Your task to perform on an android device: Is it going to rain tomorrow? Image 0: 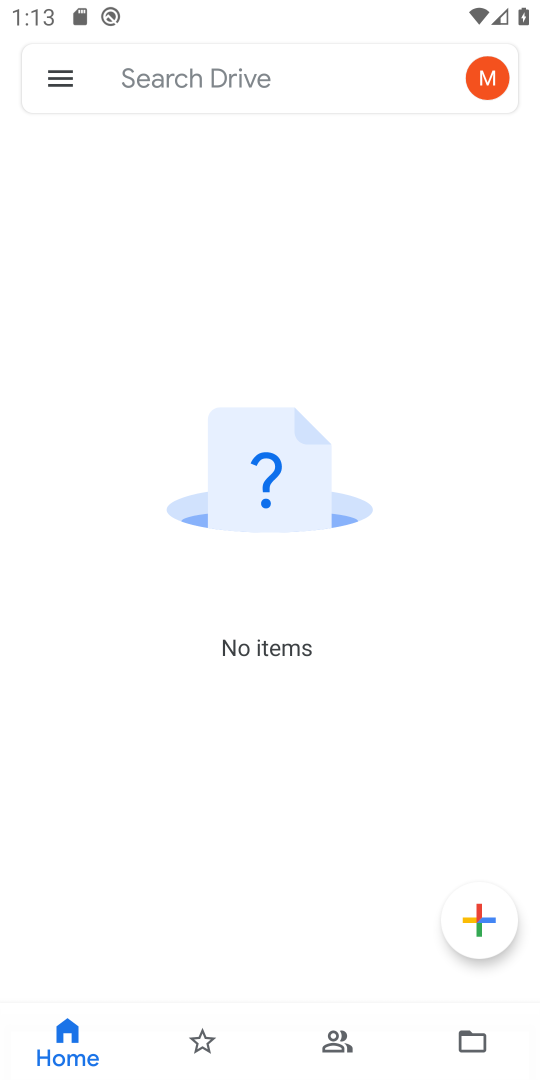
Step 0: press home button
Your task to perform on an android device: Is it going to rain tomorrow? Image 1: 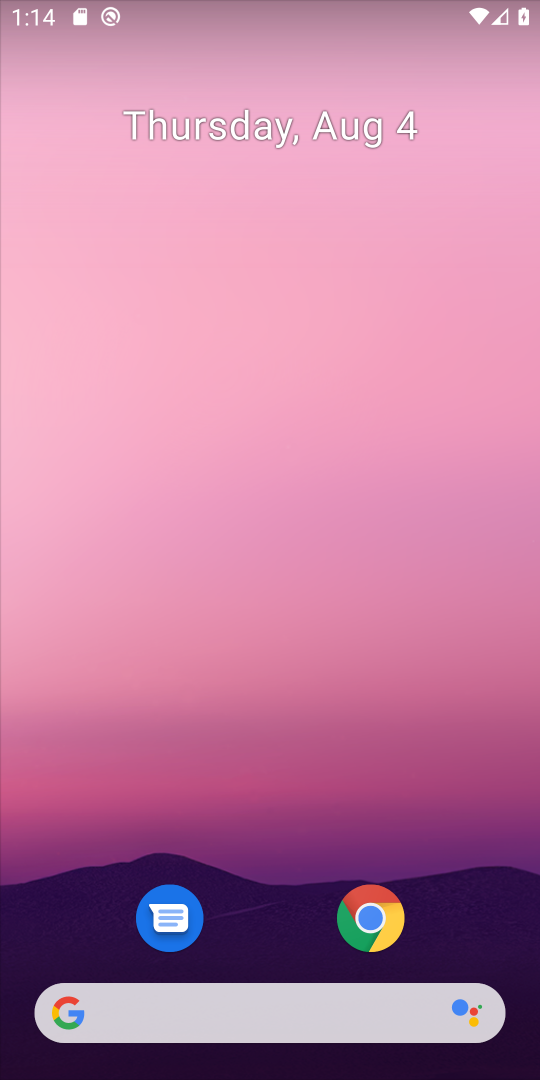
Step 1: drag from (283, 882) to (267, 174)
Your task to perform on an android device: Is it going to rain tomorrow? Image 2: 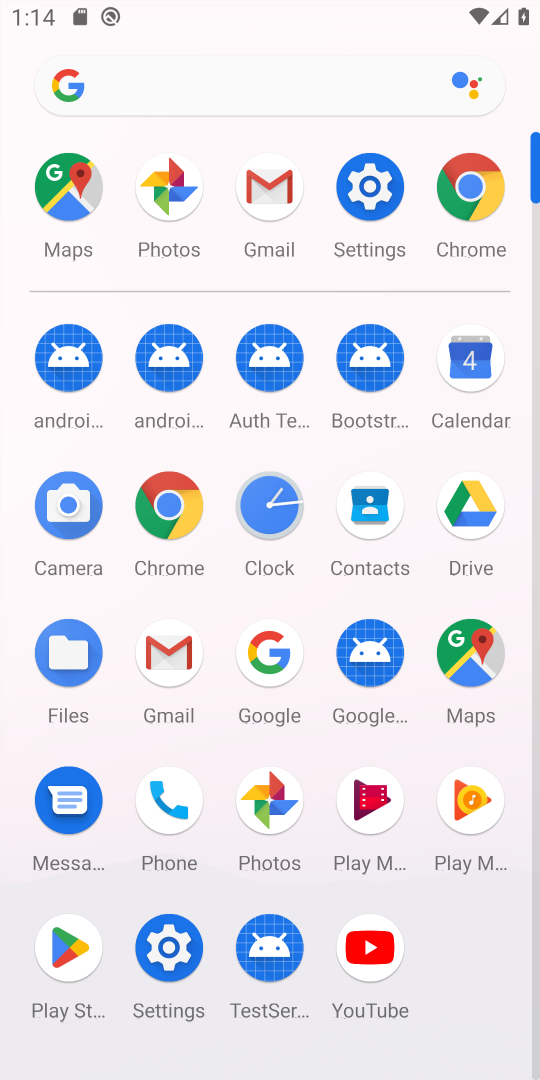
Step 2: click (249, 679)
Your task to perform on an android device: Is it going to rain tomorrow? Image 3: 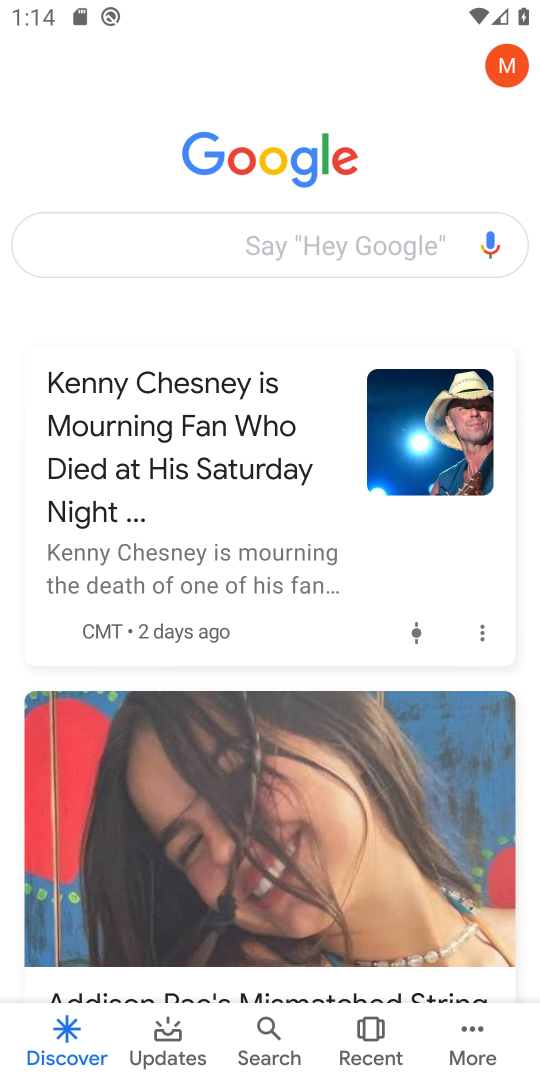
Step 3: click (193, 227)
Your task to perform on an android device: Is it going to rain tomorrow? Image 4: 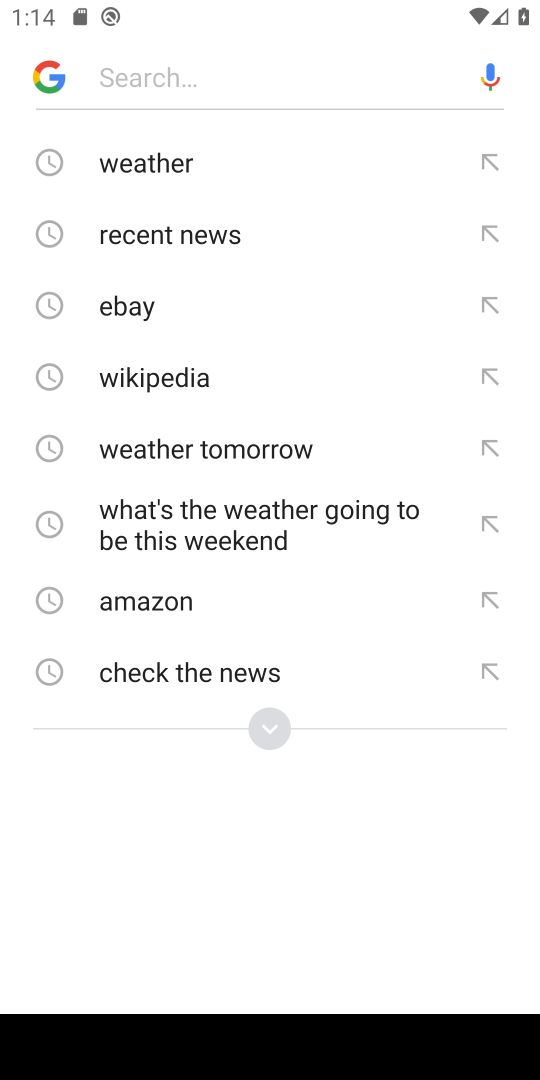
Step 4: click (179, 171)
Your task to perform on an android device: Is it going to rain tomorrow? Image 5: 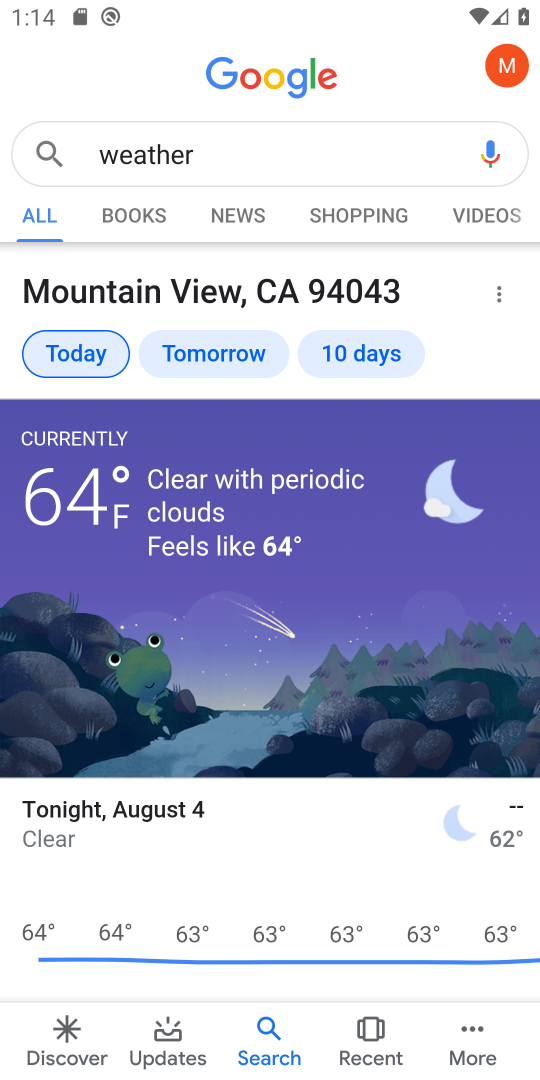
Step 5: click (239, 352)
Your task to perform on an android device: Is it going to rain tomorrow? Image 6: 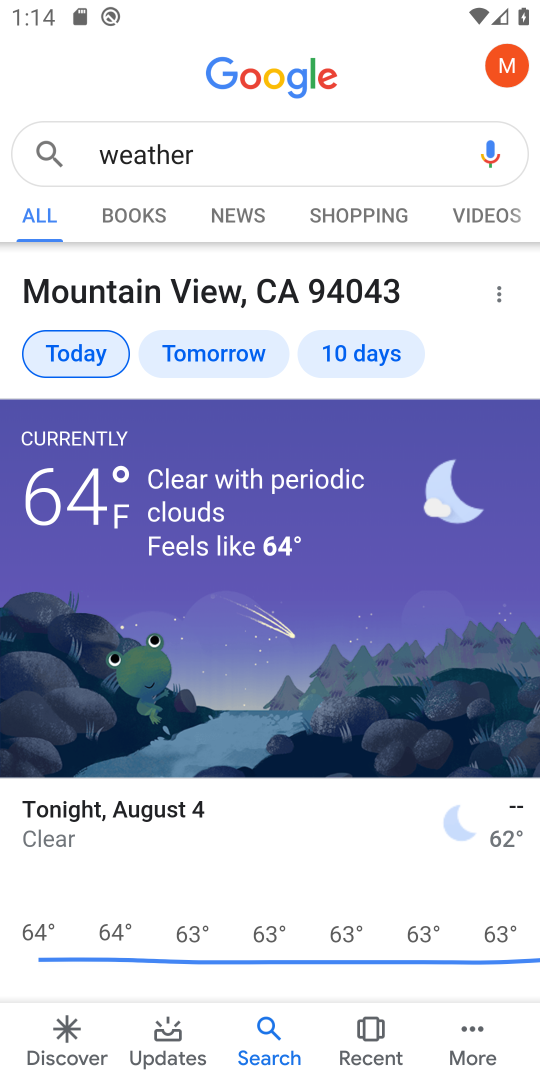
Step 6: click (216, 360)
Your task to perform on an android device: Is it going to rain tomorrow? Image 7: 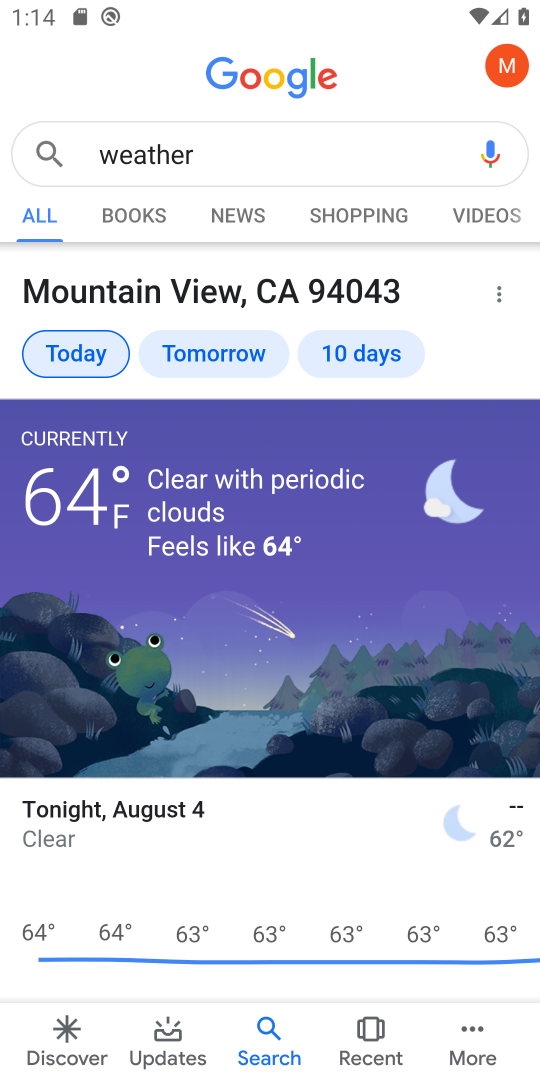
Step 7: click (217, 344)
Your task to perform on an android device: Is it going to rain tomorrow? Image 8: 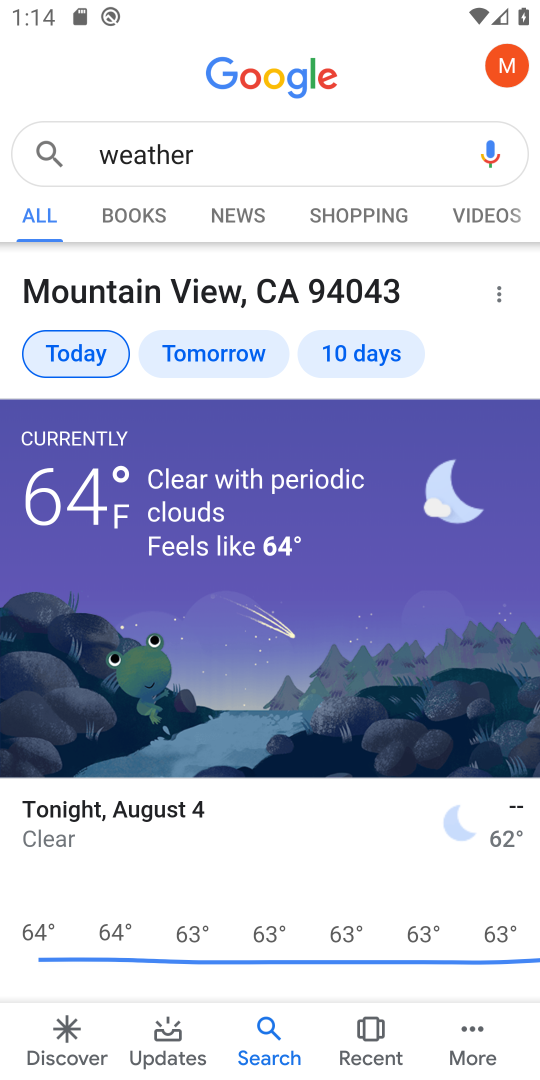
Step 8: task complete